Your task to perform on an android device: Go to Maps Image 0: 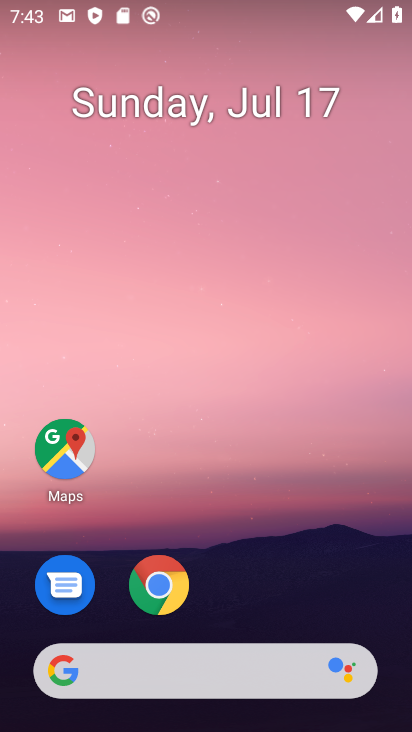
Step 0: click (58, 459)
Your task to perform on an android device: Go to Maps Image 1: 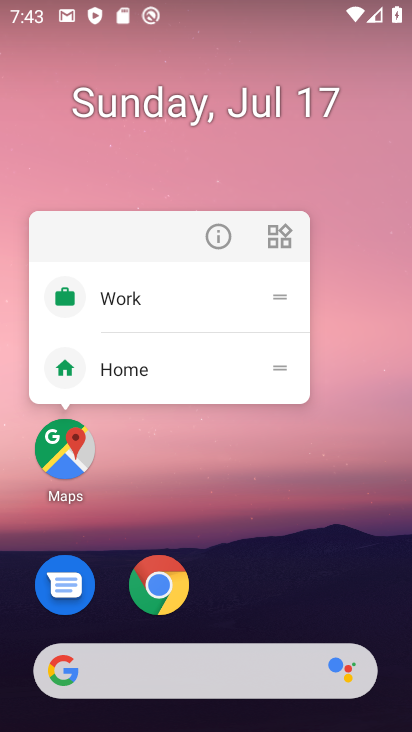
Step 1: click (62, 450)
Your task to perform on an android device: Go to Maps Image 2: 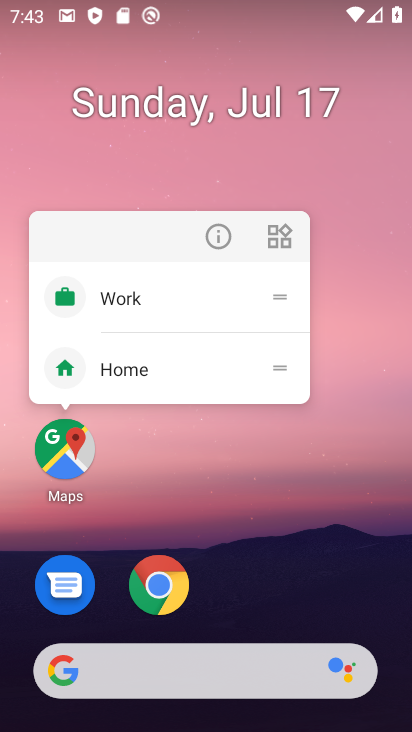
Step 2: click (66, 445)
Your task to perform on an android device: Go to Maps Image 3: 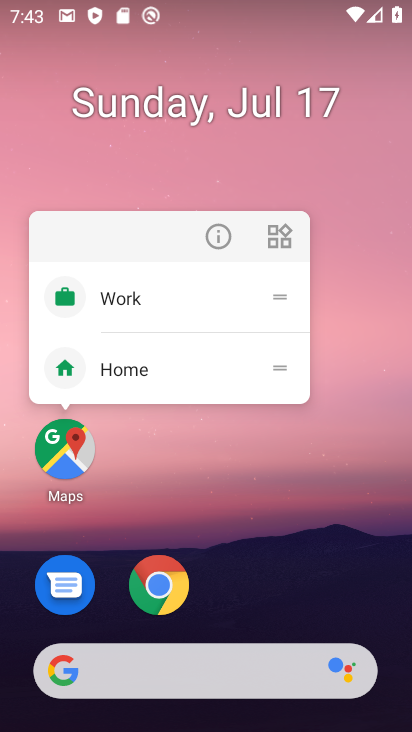
Step 3: click (66, 445)
Your task to perform on an android device: Go to Maps Image 4: 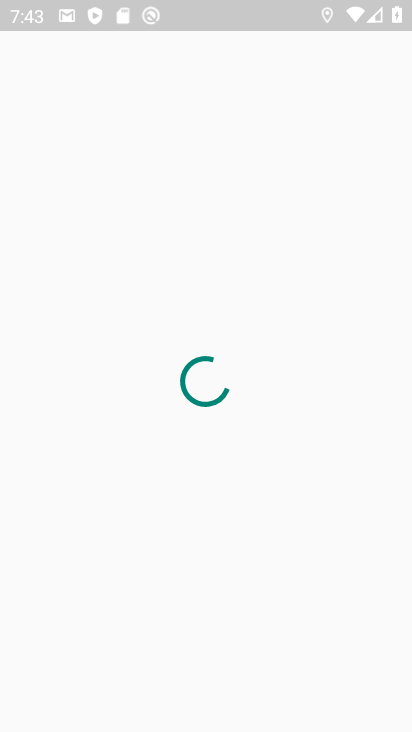
Step 4: click (371, 652)
Your task to perform on an android device: Go to Maps Image 5: 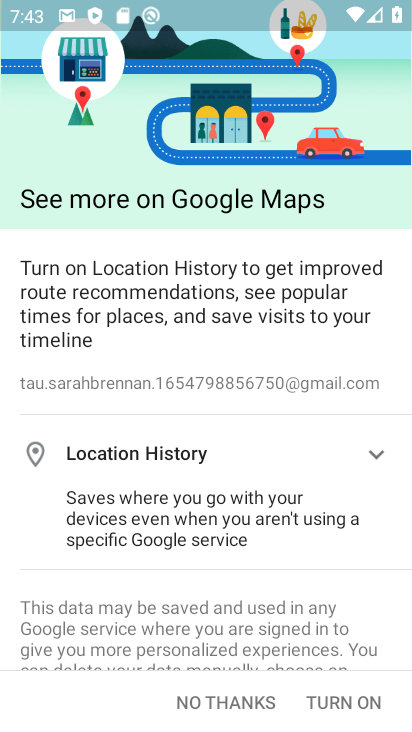
Step 5: click (226, 698)
Your task to perform on an android device: Go to Maps Image 6: 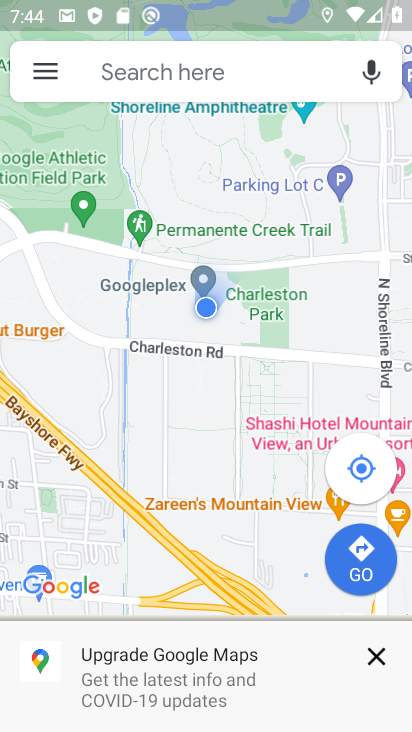
Step 6: task complete